Your task to perform on an android device: clear history in the chrome app Image 0: 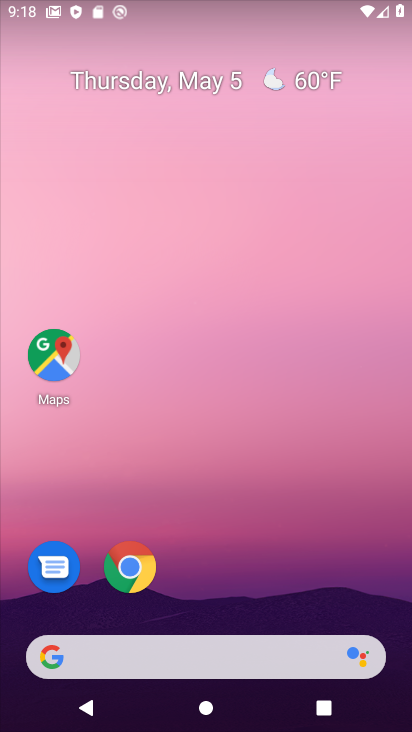
Step 0: click (146, 579)
Your task to perform on an android device: clear history in the chrome app Image 1: 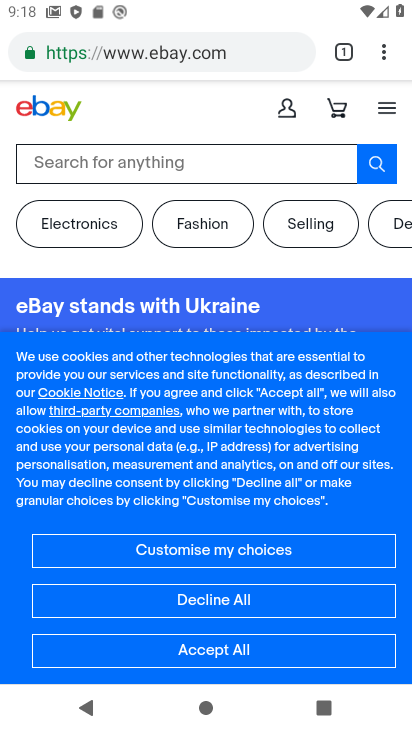
Step 1: click (380, 57)
Your task to perform on an android device: clear history in the chrome app Image 2: 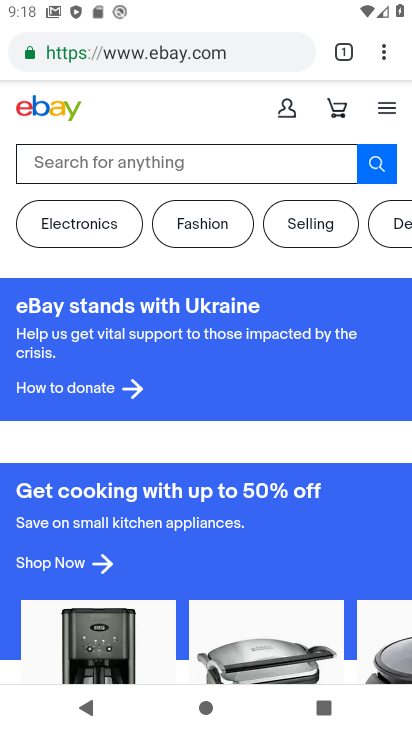
Step 2: click (387, 52)
Your task to perform on an android device: clear history in the chrome app Image 3: 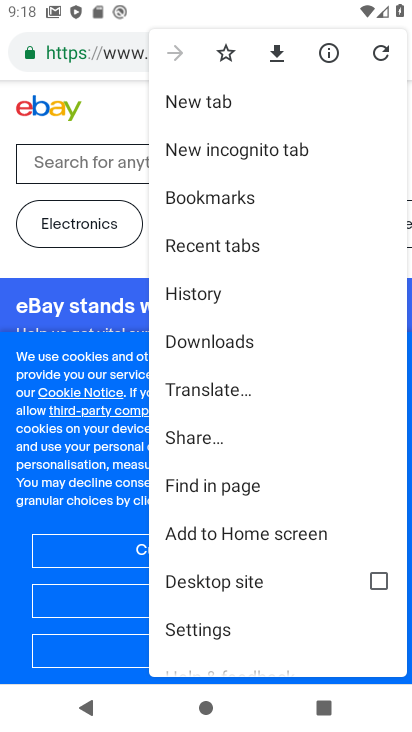
Step 3: click (231, 288)
Your task to perform on an android device: clear history in the chrome app Image 4: 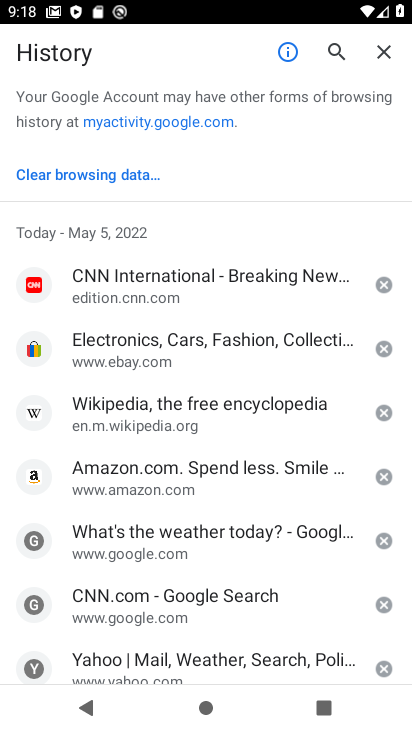
Step 4: click (73, 182)
Your task to perform on an android device: clear history in the chrome app Image 5: 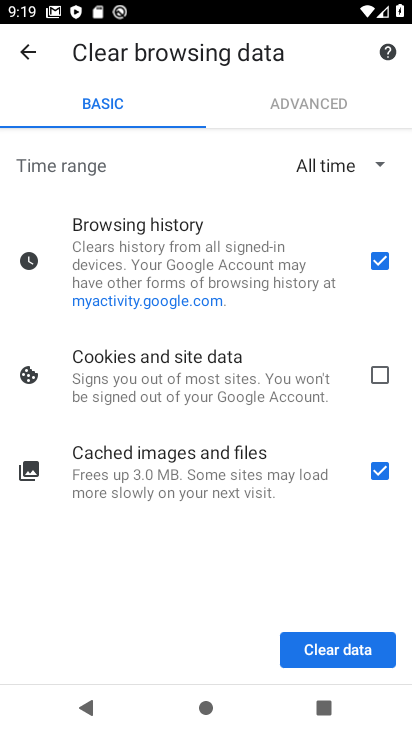
Step 5: click (374, 656)
Your task to perform on an android device: clear history in the chrome app Image 6: 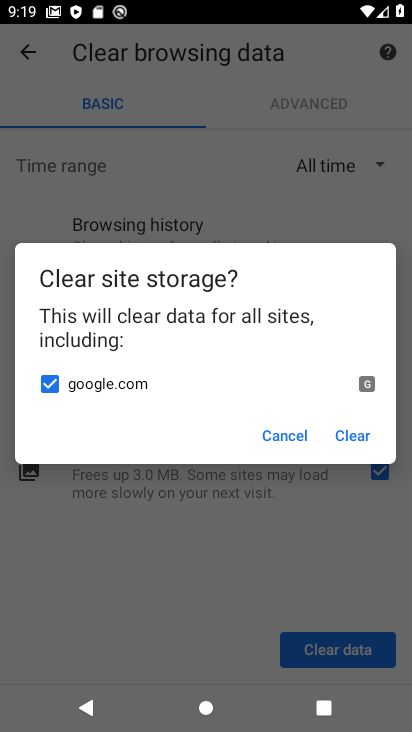
Step 6: click (352, 440)
Your task to perform on an android device: clear history in the chrome app Image 7: 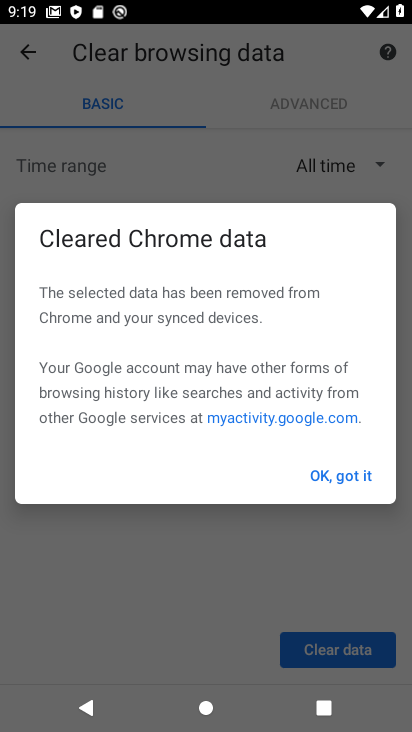
Step 7: click (337, 465)
Your task to perform on an android device: clear history in the chrome app Image 8: 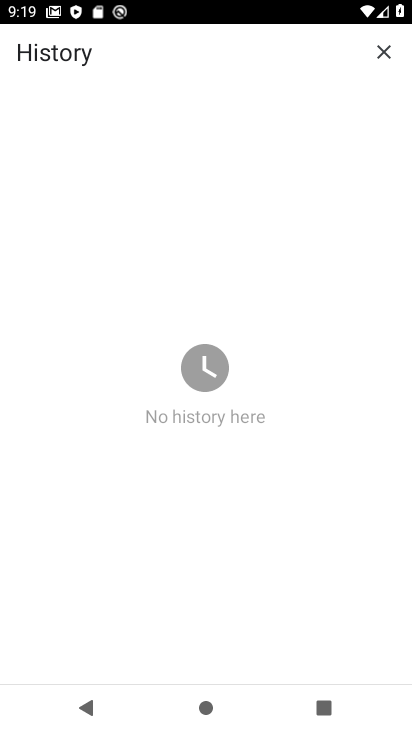
Step 8: task complete